Your task to perform on an android device: Show me popular games on the Play Store Image 0: 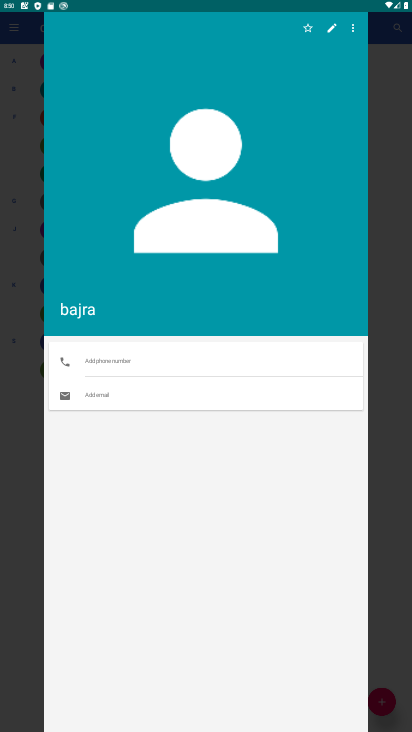
Step 0: press home button
Your task to perform on an android device: Show me popular games on the Play Store Image 1: 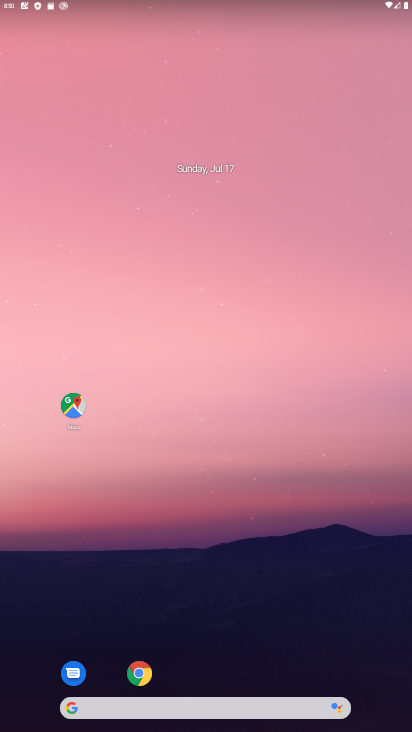
Step 1: drag from (314, 537) to (351, 120)
Your task to perform on an android device: Show me popular games on the Play Store Image 2: 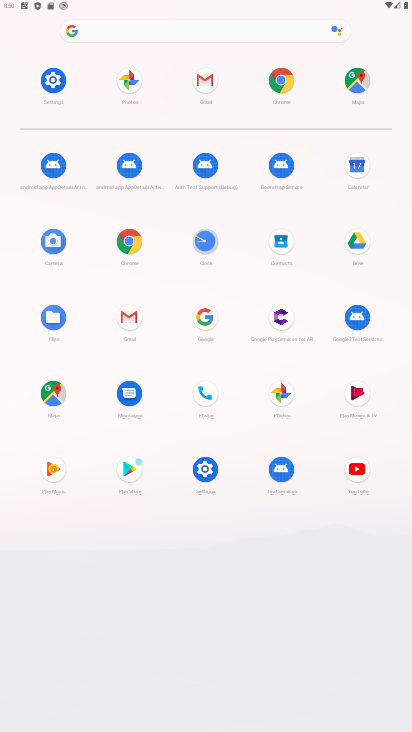
Step 2: click (124, 470)
Your task to perform on an android device: Show me popular games on the Play Store Image 3: 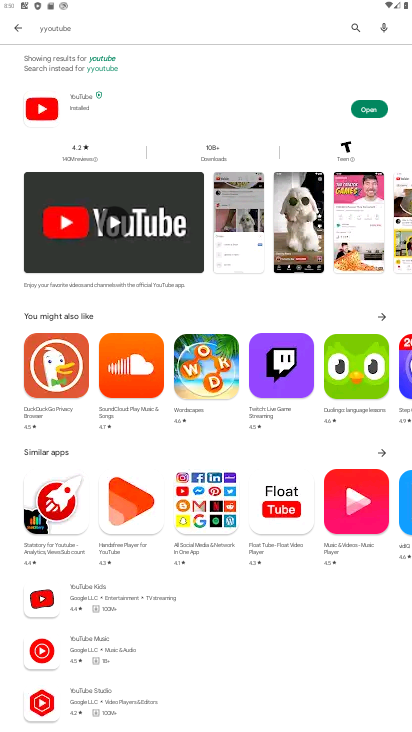
Step 3: click (16, 25)
Your task to perform on an android device: Show me popular games on the Play Store Image 4: 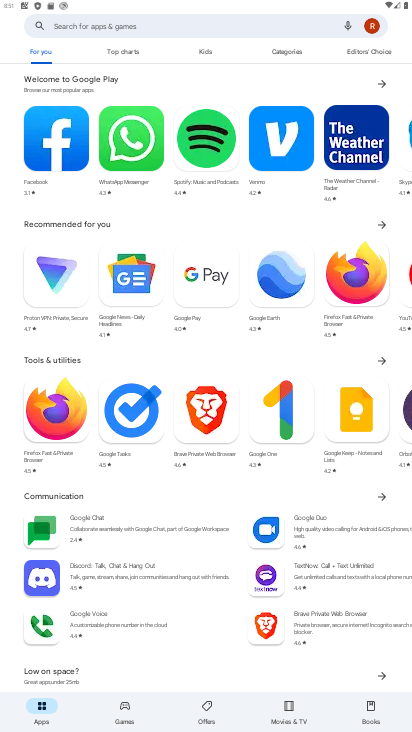
Step 4: drag from (269, 463) to (258, 108)
Your task to perform on an android device: Show me popular games on the Play Store Image 5: 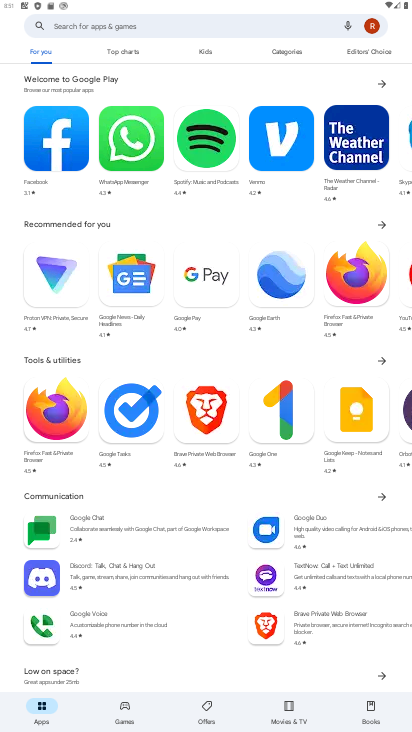
Step 5: drag from (157, 541) to (197, 94)
Your task to perform on an android device: Show me popular games on the Play Store Image 6: 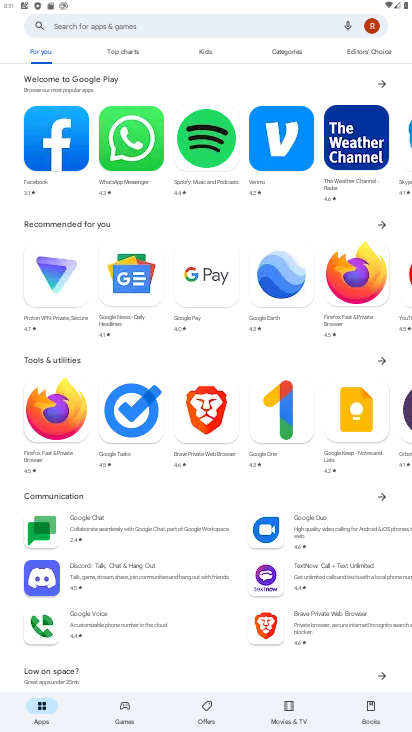
Step 6: drag from (325, 346) to (311, 78)
Your task to perform on an android device: Show me popular games on the Play Store Image 7: 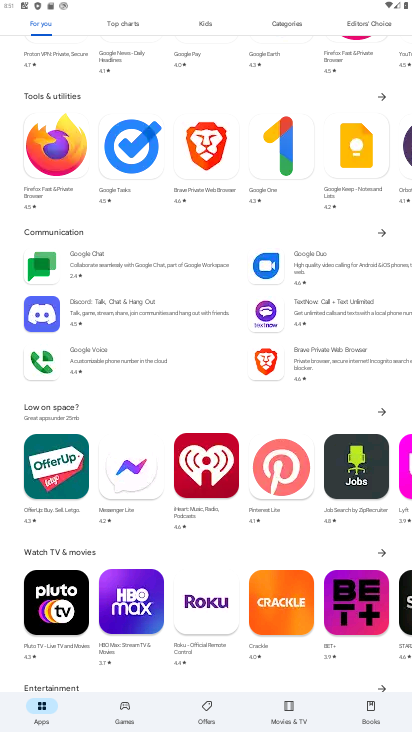
Step 7: drag from (258, 547) to (270, 40)
Your task to perform on an android device: Show me popular games on the Play Store Image 8: 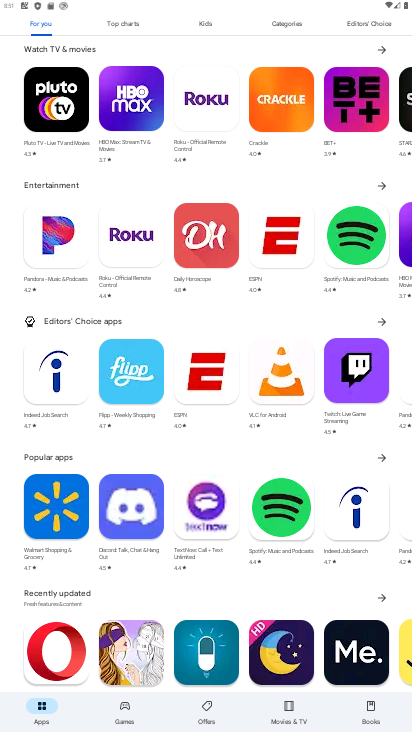
Step 8: drag from (216, 596) to (249, 40)
Your task to perform on an android device: Show me popular games on the Play Store Image 9: 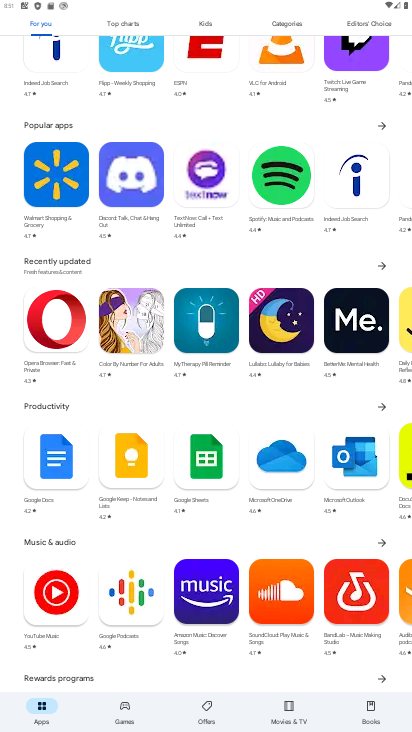
Step 9: drag from (245, 532) to (273, 145)
Your task to perform on an android device: Show me popular games on the Play Store Image 10: 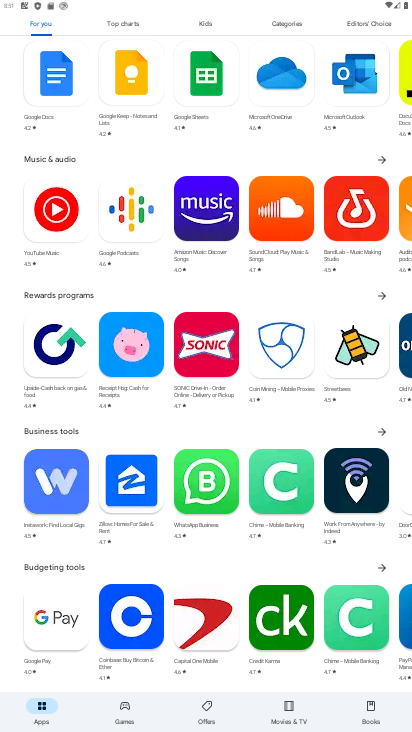
Step 10: click (124, 707)
Your task to perform on an android device: Show me popular games on the Play Store Image 11: 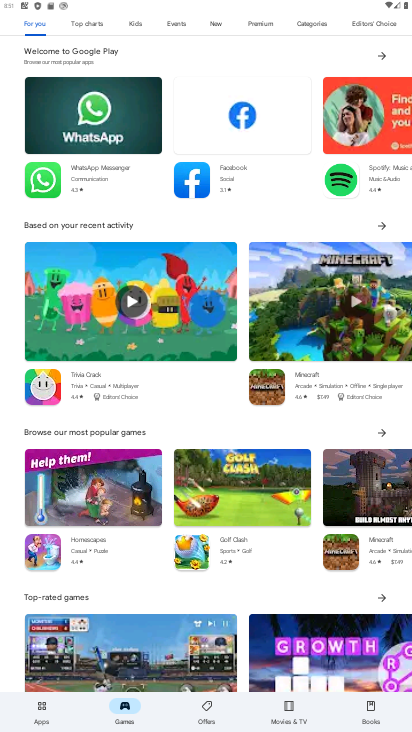
Step 11: task complete